Your task to perform on an android device: turn off translation in the chrome app Image 0: 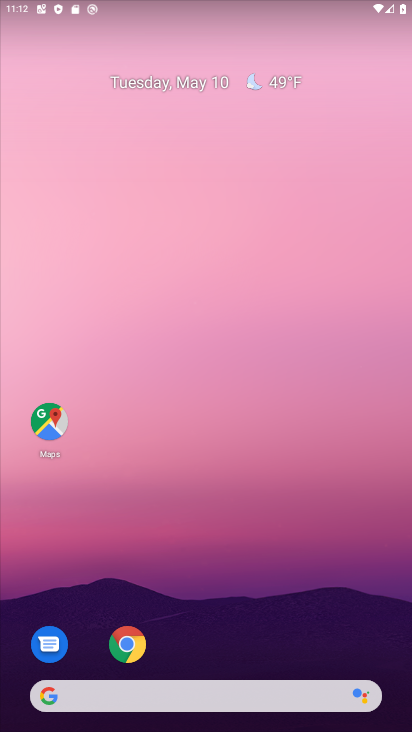
Step 0: click (144, 640)
Your task to perform on an android device: turn off translation in the chrome app Image 1: 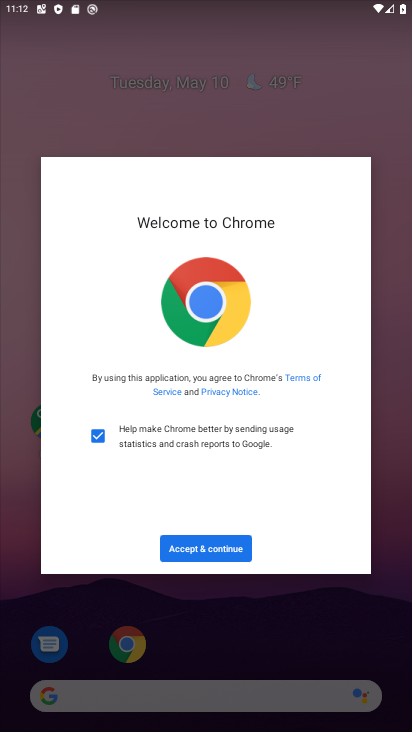
Step 1: click (199, 545)
Your task to perform on an android device: turn off translation in the chrome app Image 2: 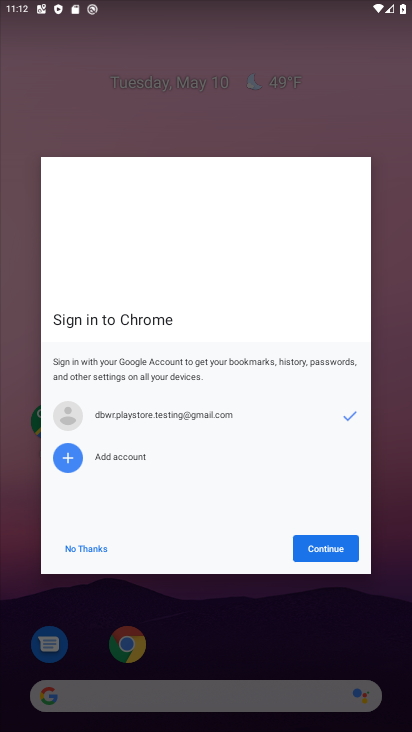
Step 2: click (302, 537)
Your task to perform on an android device: turn off translation in the chrome app Image 3: 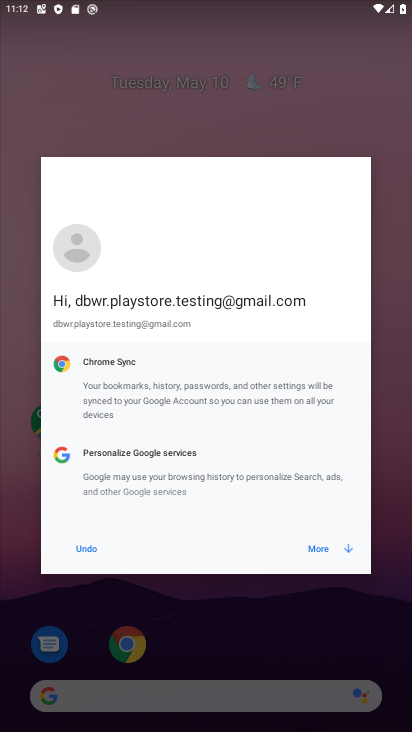
Step 3: click (298, 541)
Your task to perform on an android device: turn off translation in the chrome app Image 4: 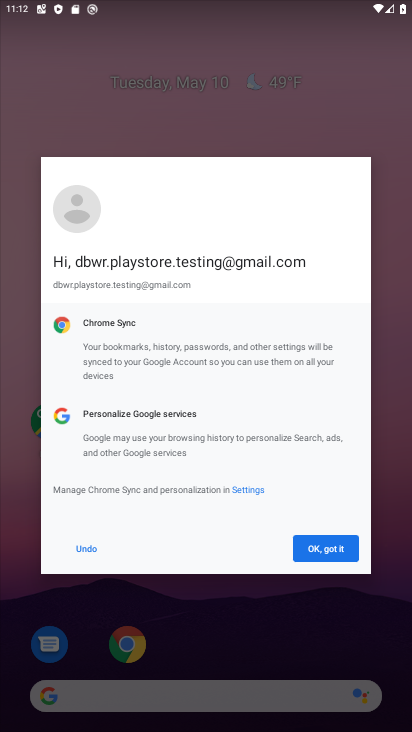
Step 4: click (298, 541)
Your task to perform on an android device: turn off translation in the chrome app Image 5: 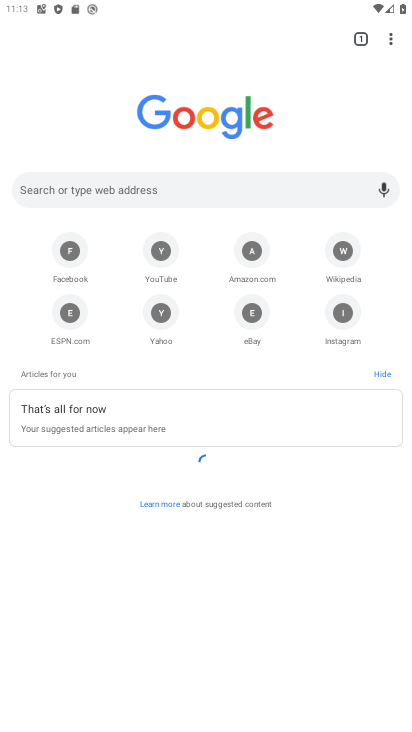
Step 5: drag from (389, 36) to (271, 317)
Your task to perform on an android device: turn off translation in the chrome app Image 6: 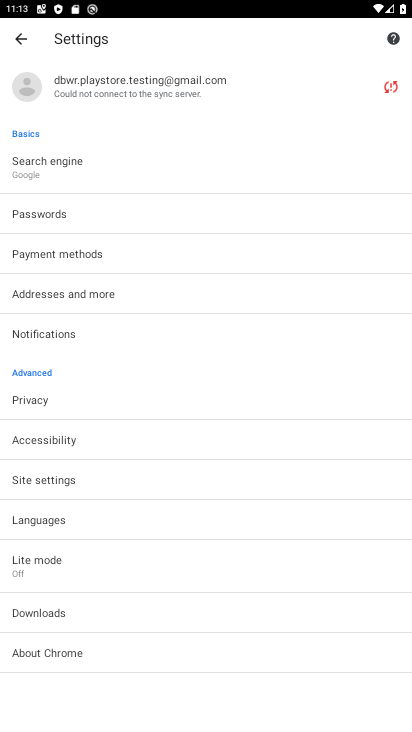
Step 6: click (71, 530)
Your task to perform on an android device: turn off translation in the chrome app Image 7: 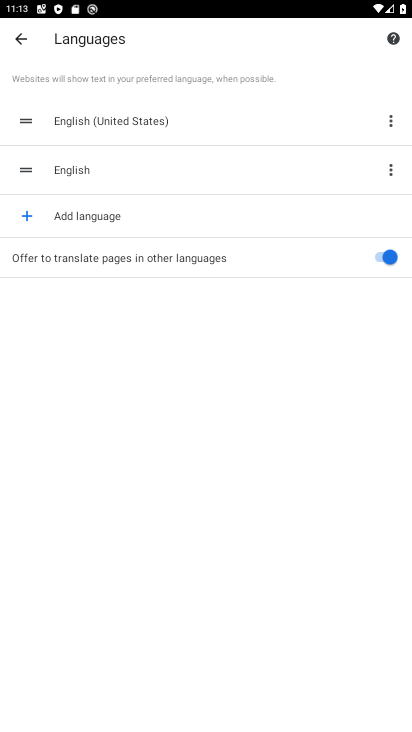
Step 7: click (368, 252)
Your task to perform on an android device: turn off translation in the chrome app Image 8: 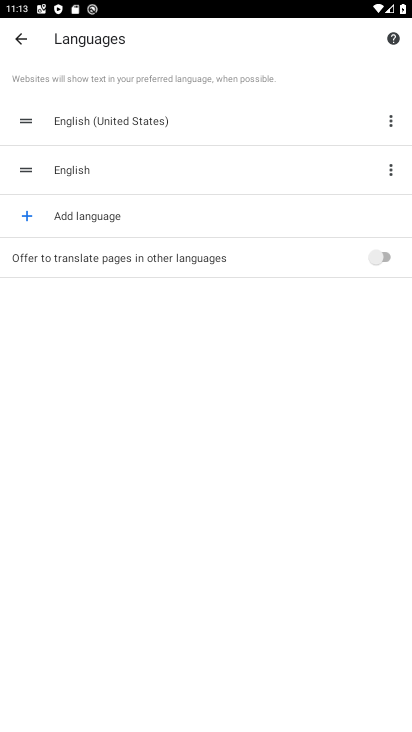
Step 8: task complete